Your task to perform on an android device: open a bookmark in the chrome app Image 0: 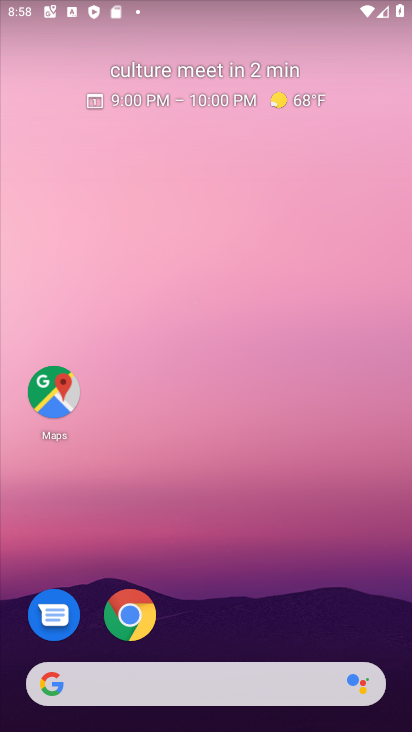
Step 0: click (125, 616)
Your task to perform on an android device: open a bookmark in the chrome app Image 1: 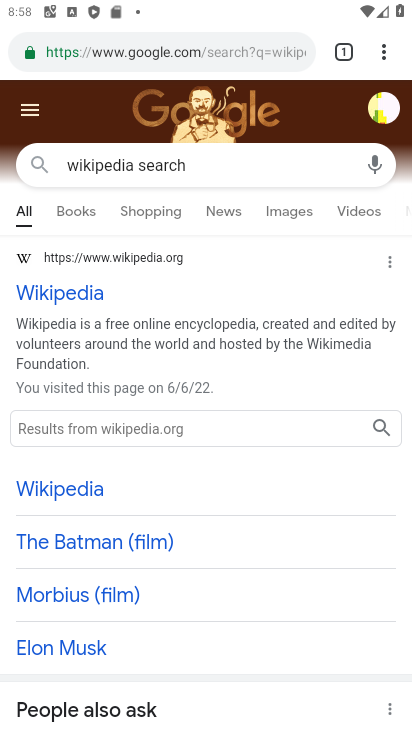
Step 1: click (383, 56)
Your task to perform on an android device: open a bookmark in the chrome app Image 2: 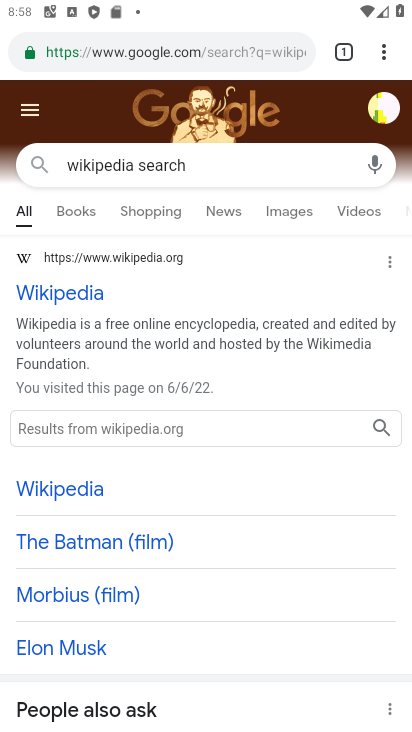
Step 2: click (381, 54)
Your task to perform on an android device: open a bookmark in the chrome app Image 3: 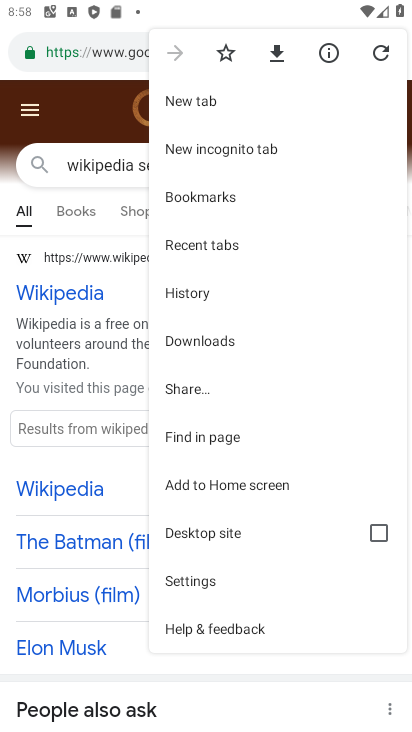
Step 3: click (201, 200)
Your task to perform on an android device: open a bookmark in the chrome app Image 4: 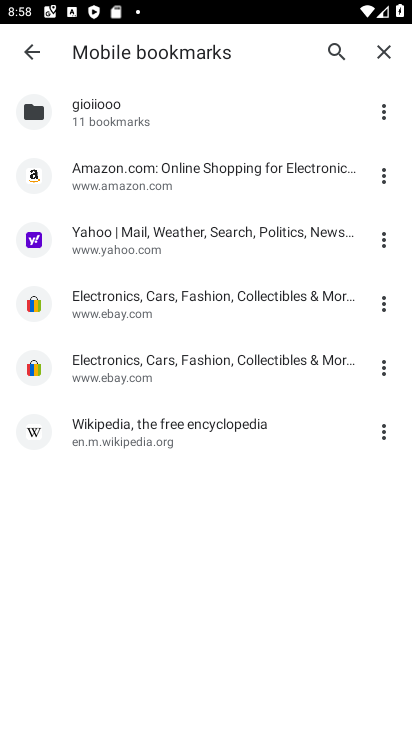
Step 4: click (126, 237)
Your task to perform on an android device: open a bookmark in the chrome app Image 5: 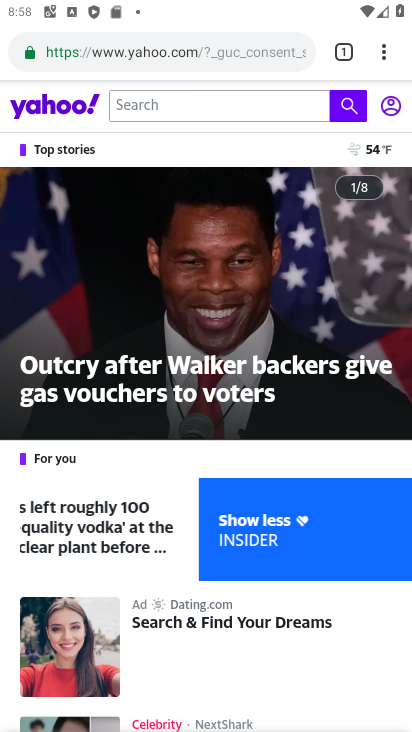
Step 5: task complete